Your task to perform on an android device: delete browsing data in the chrome app Image 0: 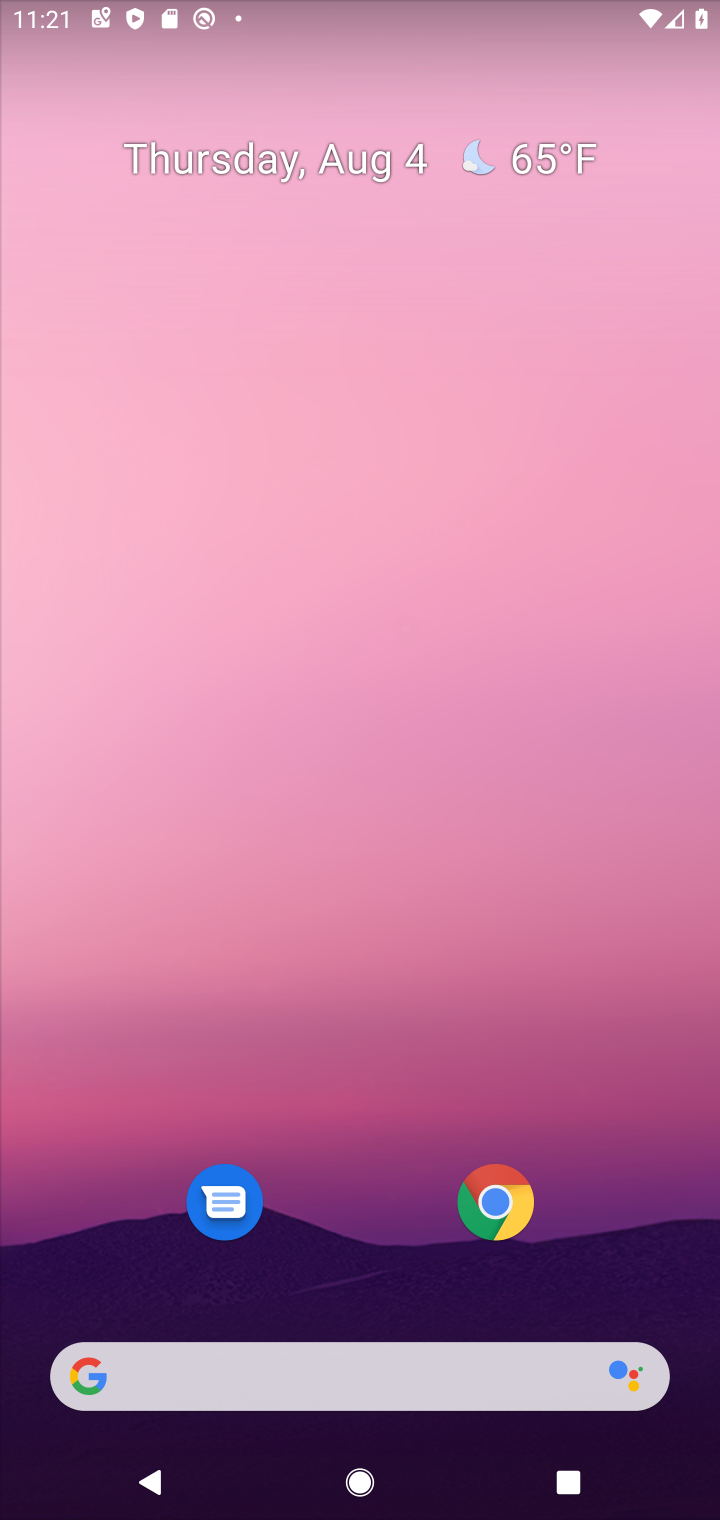
Step 0: click (495, 1206)
Your task to perform on an android device: delete browsing data in the chrome app Image 1: 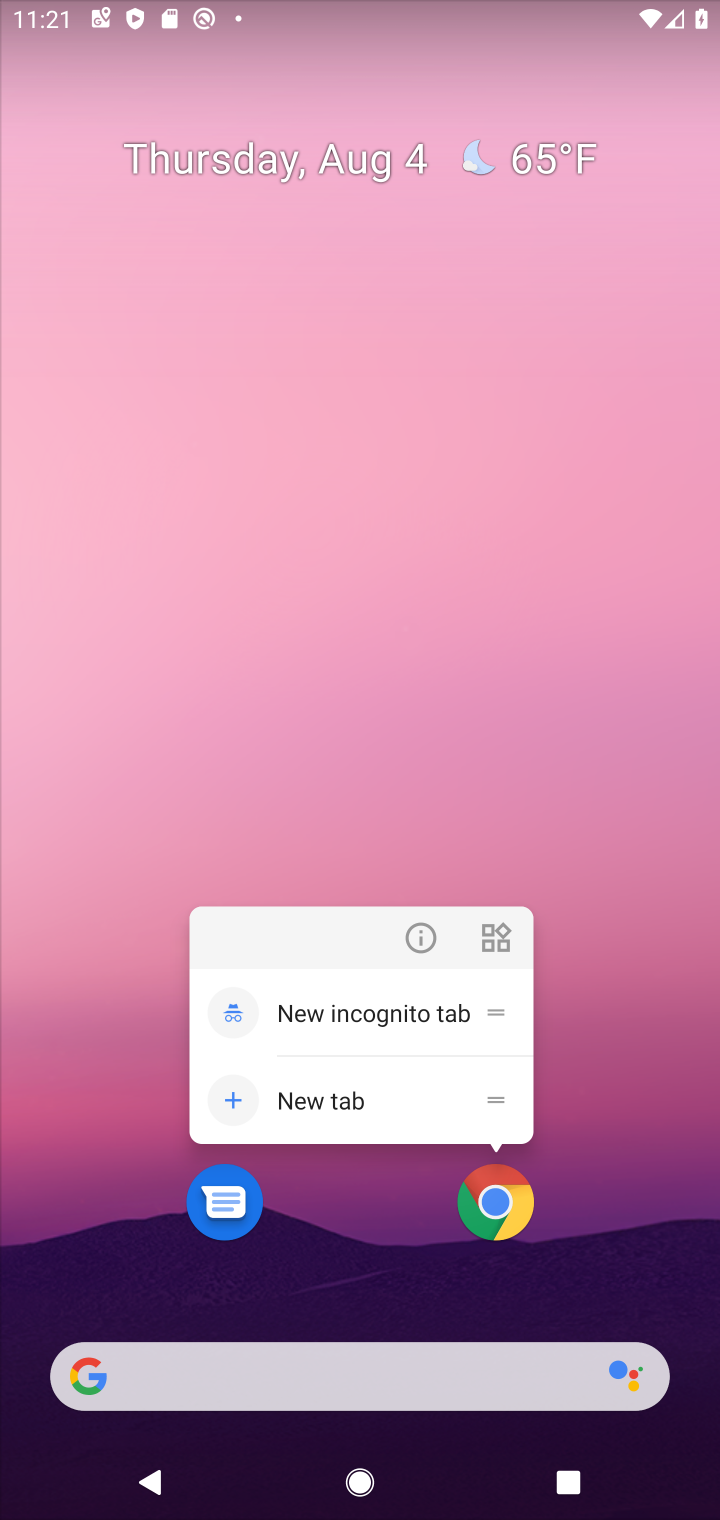
Step 1: click (498, 1212)
Your task to perform on an android device: delete browsing data in the chrome app Image 2: 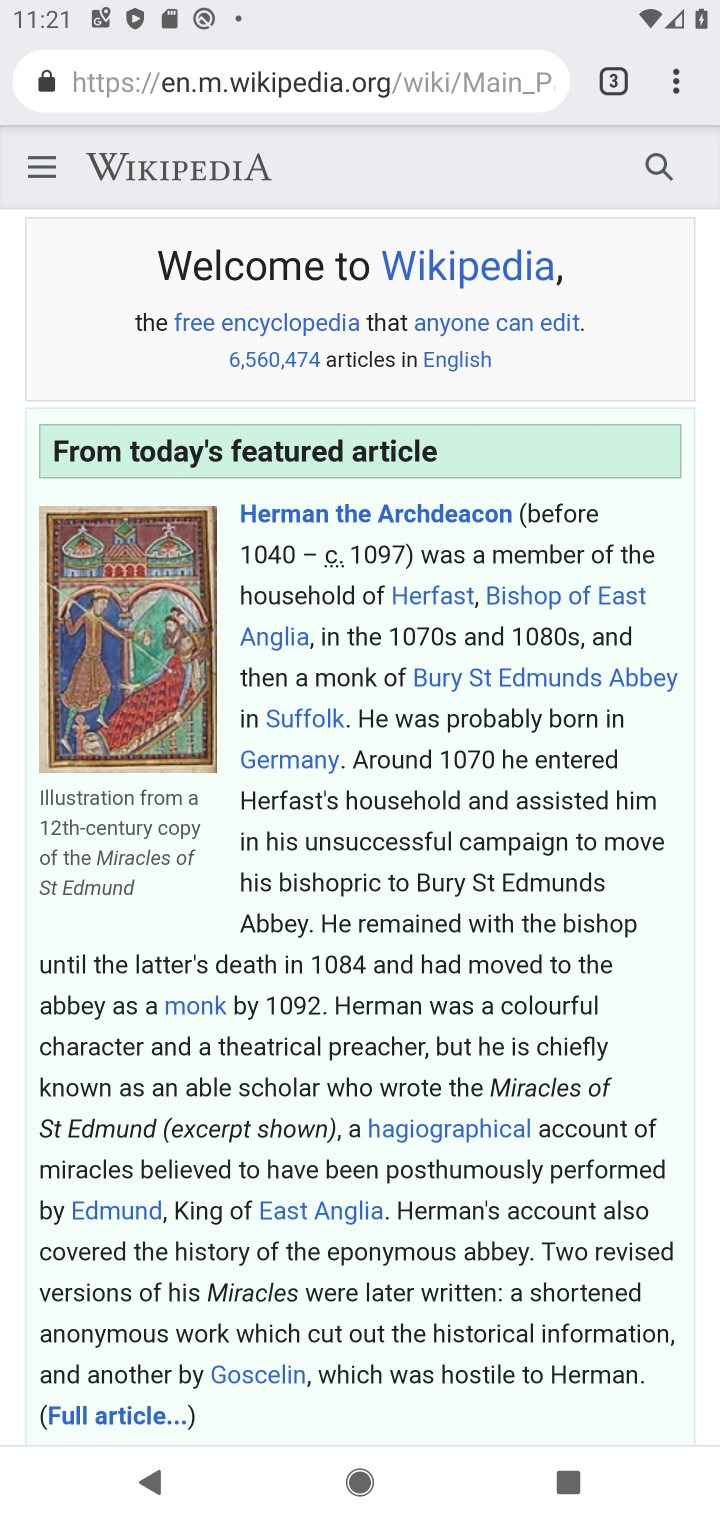
Step 2: drag from (674, 93) to (433, 544)
Your task to perform on an android device: delete browsing data in the chrome app Image 3: 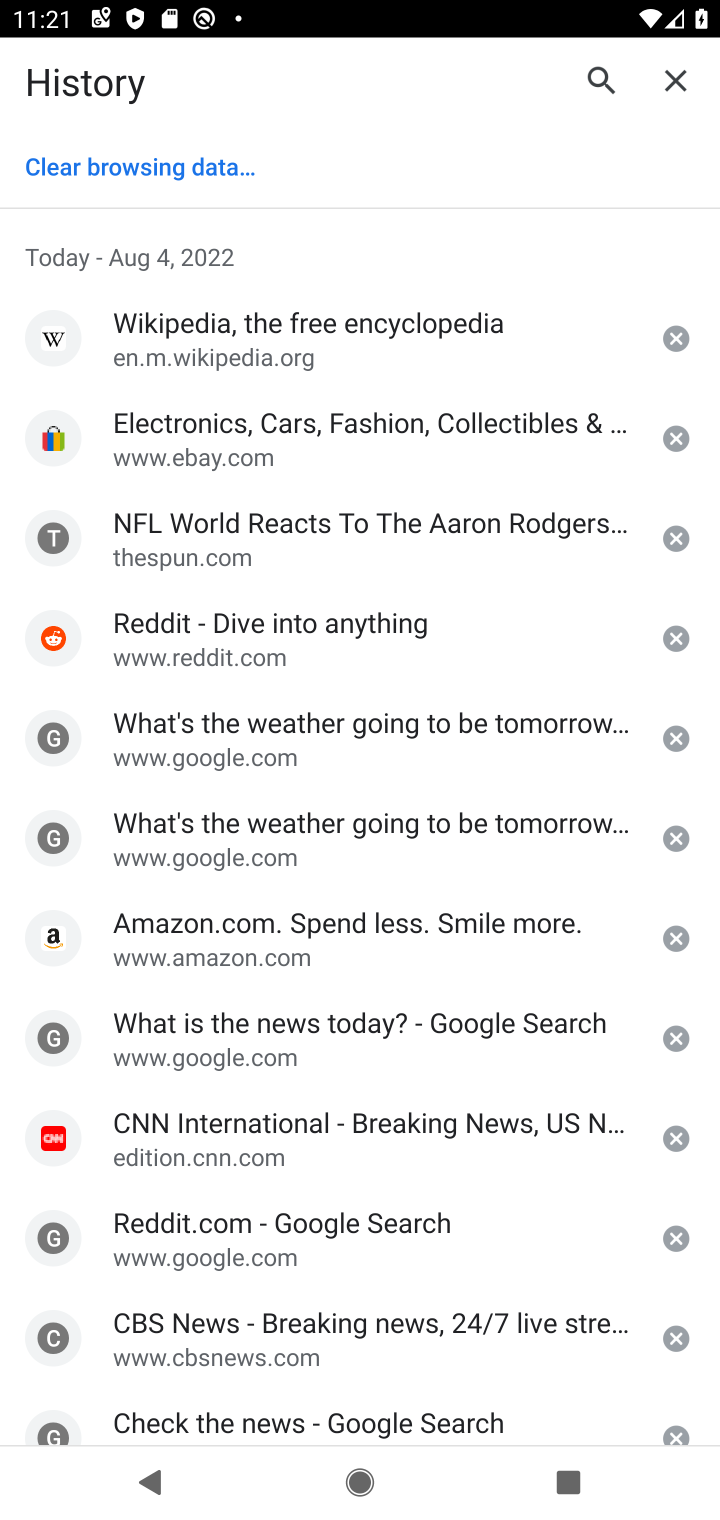
Step 3: click (105, 157)
Your task to perform on an android device: delete browsing data in the chrome app Image 4: 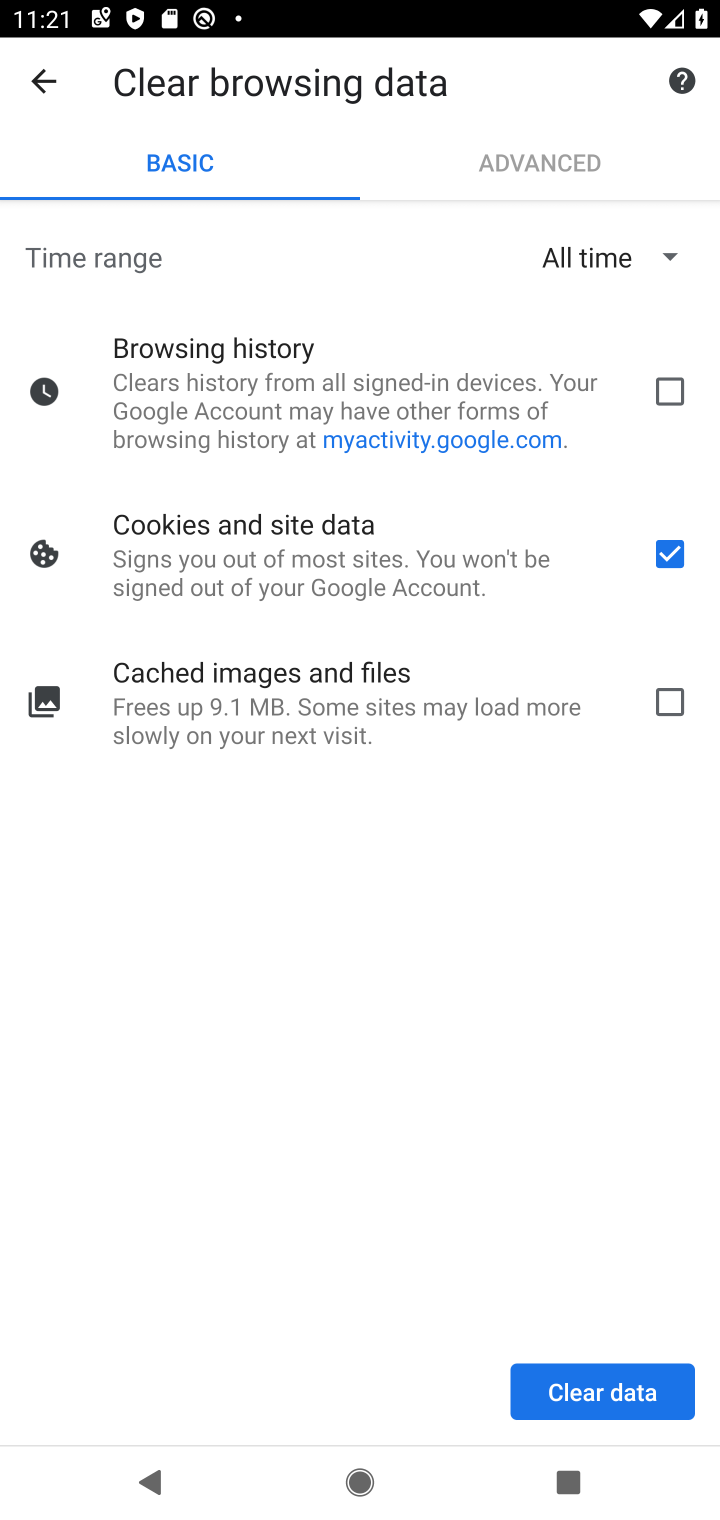
Step 4: click (659, 396)
Your task to perform on an android device: delete browsing data in the chrome app Image 5: 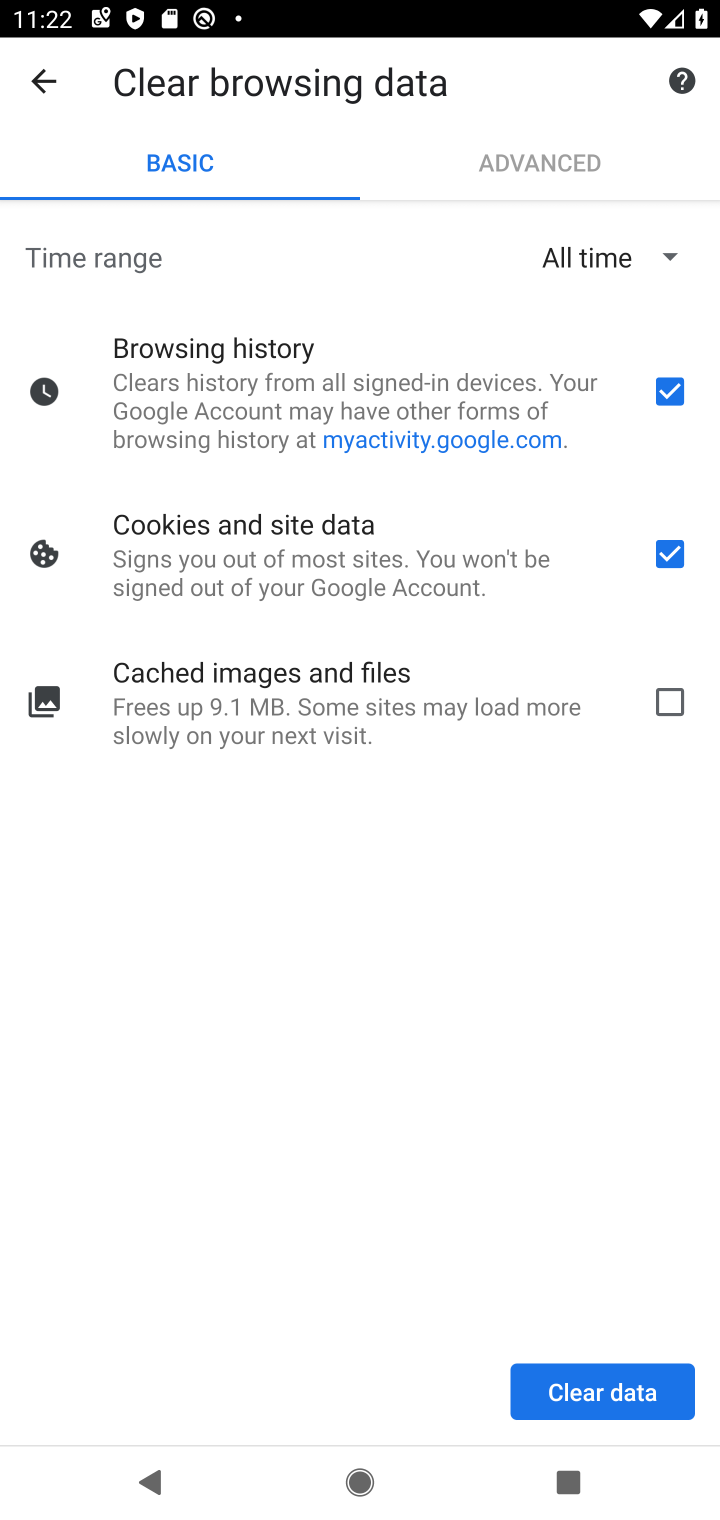
Step 5: click (661, 696)
Your task to perform on an android device: delete browsing data in the chrome app Image 6: 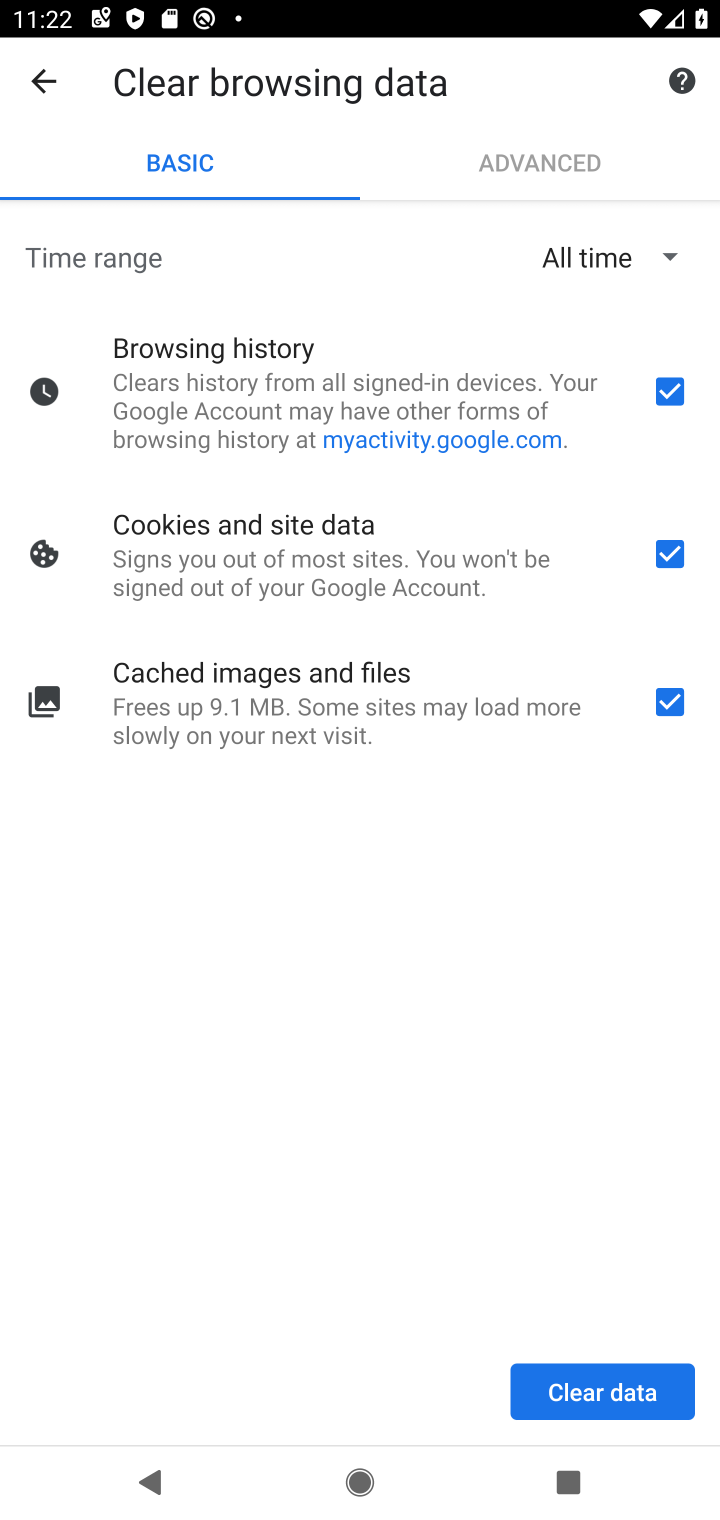
Step 6: click (620, 1387)
Your task to perform on an android device: delete browsing data in the chrome app Image 7: 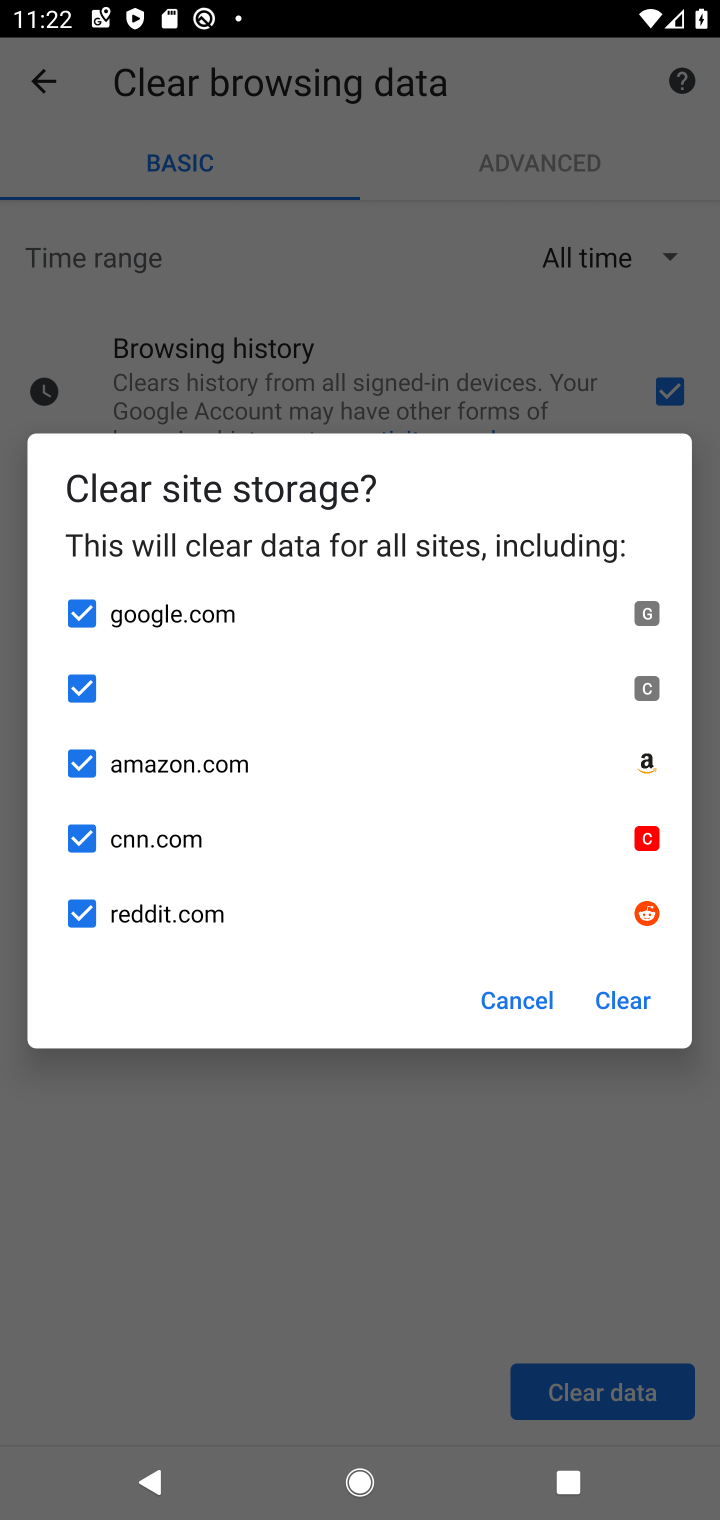
Step 7: click (631, 1011)
Your task to perform on an android device: delete browsing data in the chrome app Image 8: 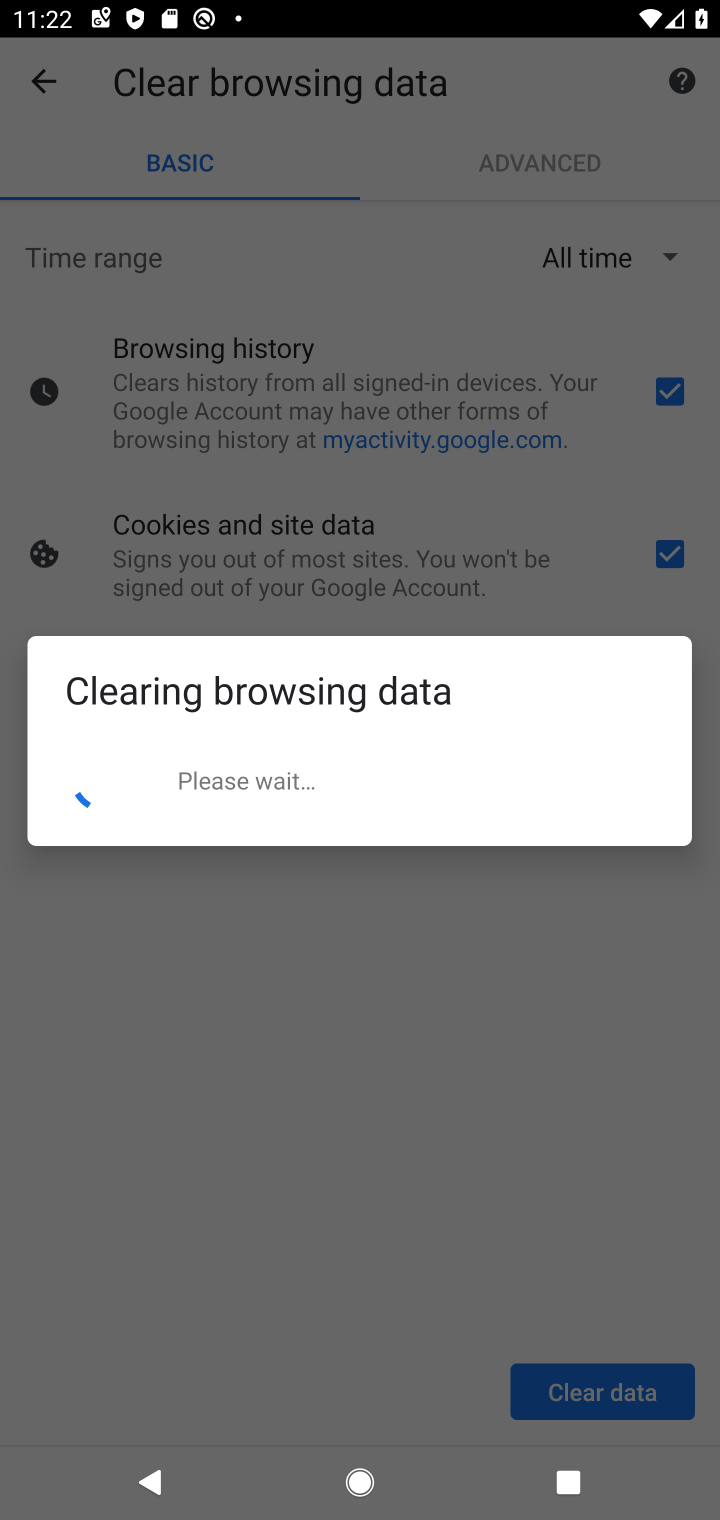
Step 8: task complete